Your task to perform on an android device: check android version Image 0: 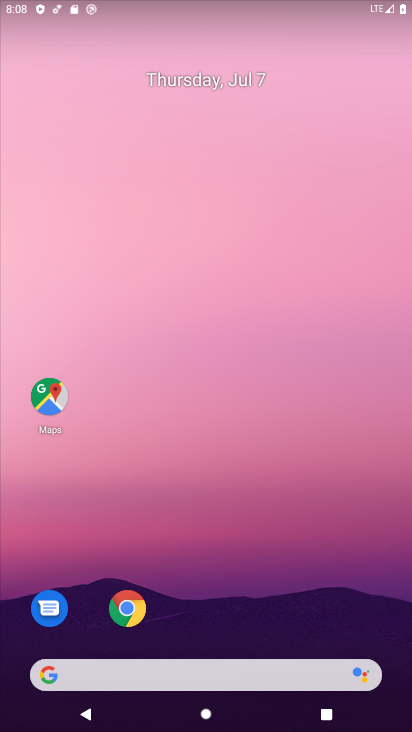
Step 0: drag from (362, 623) to (383, 37)
Your task to perform on an android device: check android version Image 1: 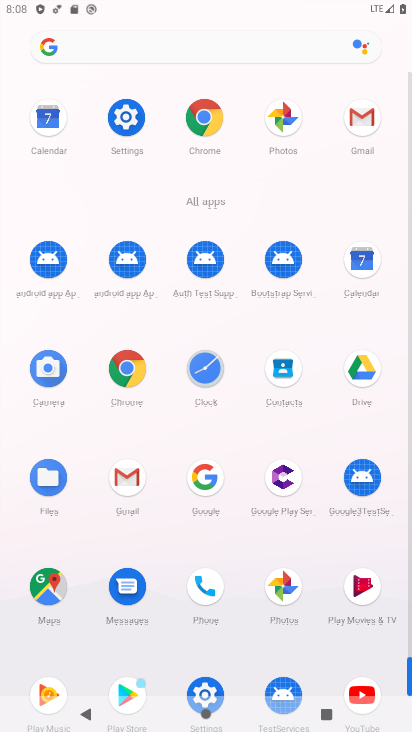
Step 1: click (130, 125)
Your task to perform on an android device: check android version Image 2: 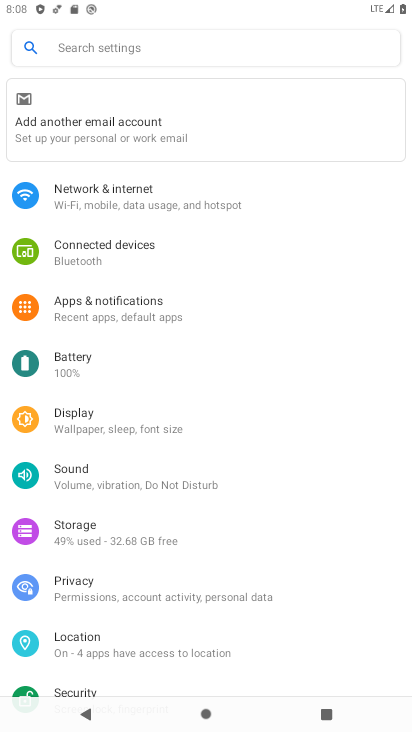
Step 2: click (326, 301)
Your task to perform on an android device: check android version Image 3: 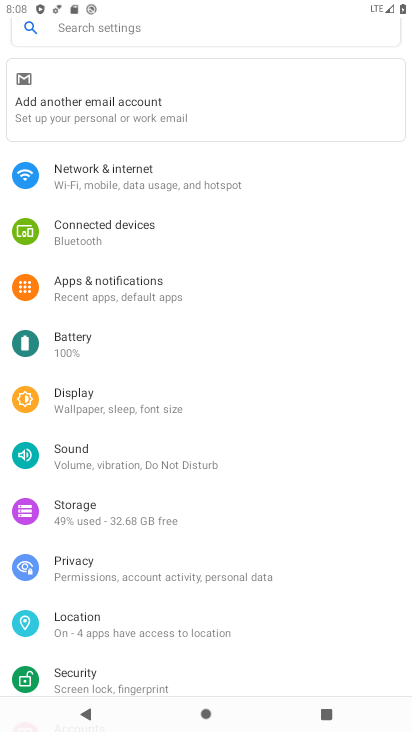
Step 3: drag from (330, 362) to (330, 270)
Your task to perform on an android device: check android version Image 4: 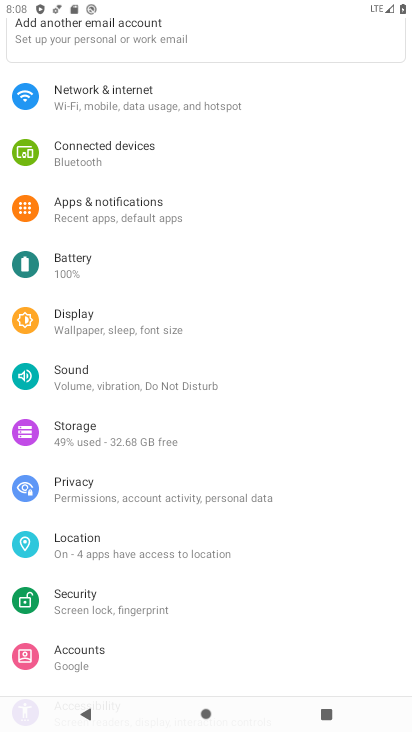
Step 4: drag from (320, 371) to (324, 274)
Your task to perform on an android device: check android version Image 5: 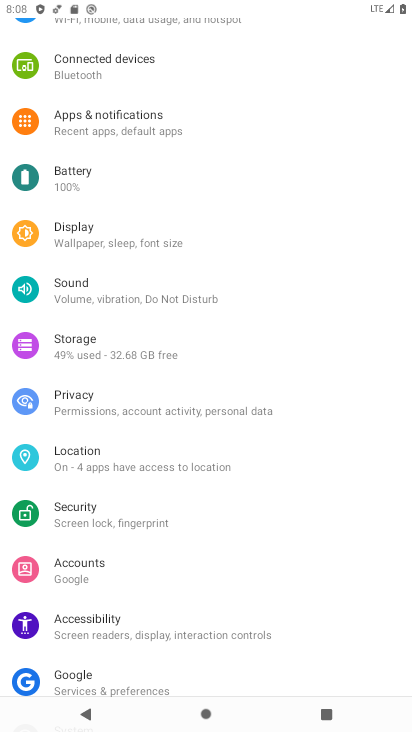
Step 5: drag from (327, 383) to (330, 282)
Your task to perform on an android device: check android version Image 6: 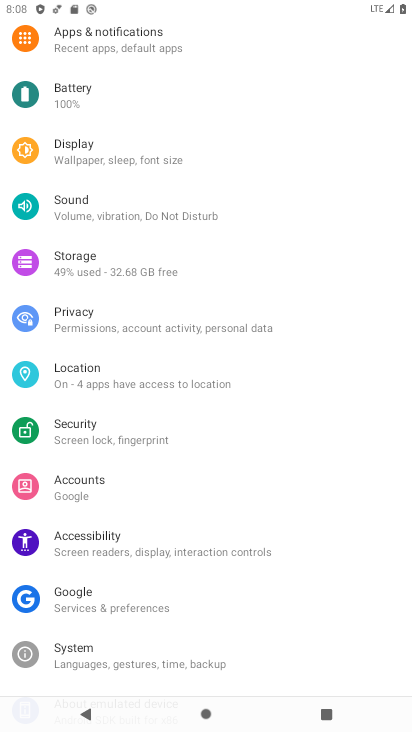
Step 6: drag from (331, 403) to (345, 310)
Your task to perform on an android device: check android version Image 7: 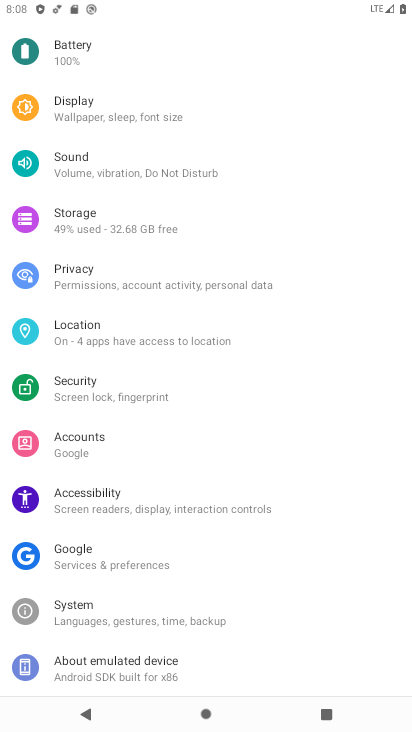
Step 7: drag from (353, 471) to (362, 354)
Your task to perform on an android device: check android version Image 8: 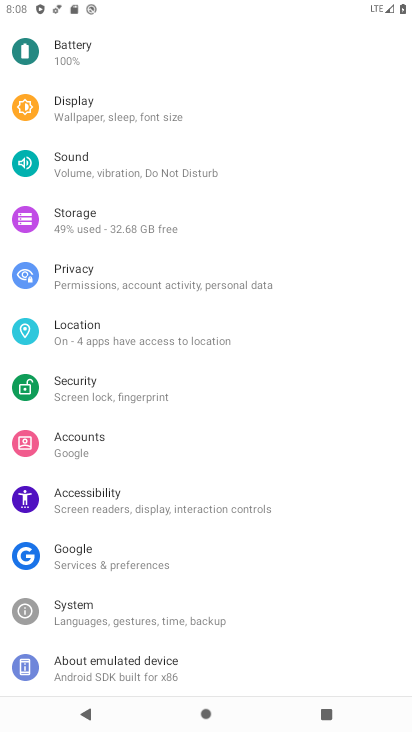
Step 8: click (216, 618)
Your task to perform on an android device: check android version Image 9: 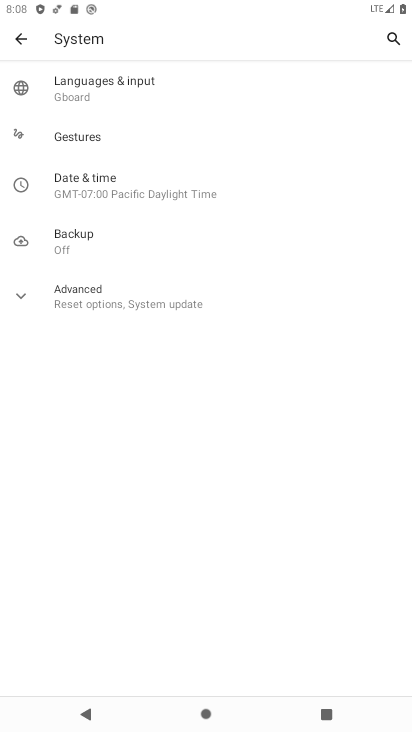
Step 9: click (207, 305)
Your task to perform on an android device: check android version Image 10: 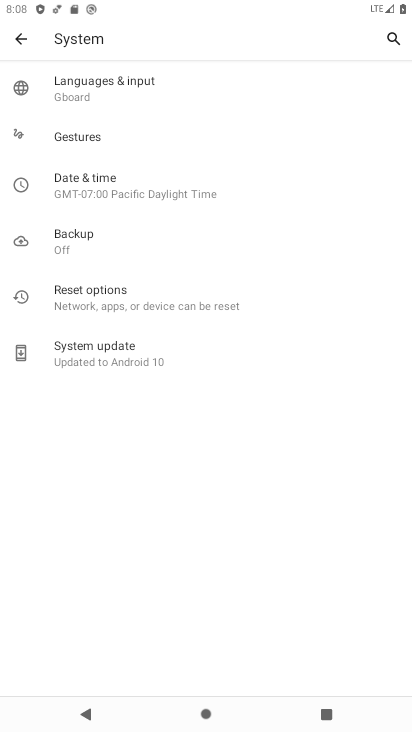
Step 10: click (142, 359)
Your task to perform on an android device: check android version Image 11: 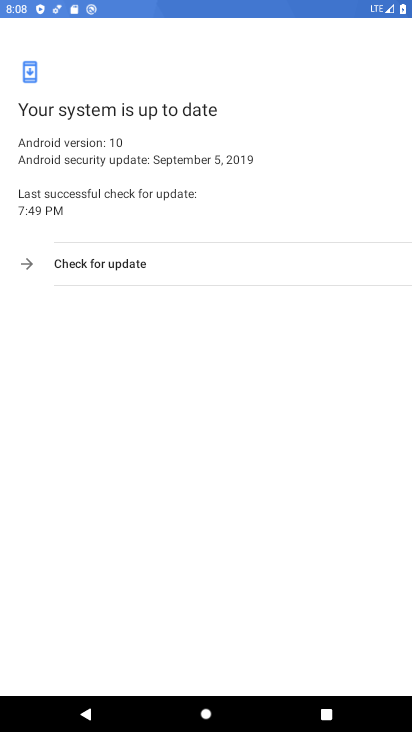
Step 11: task complete